Your task to perform on an android device: choose inbox layout in the gmail app Image 0: 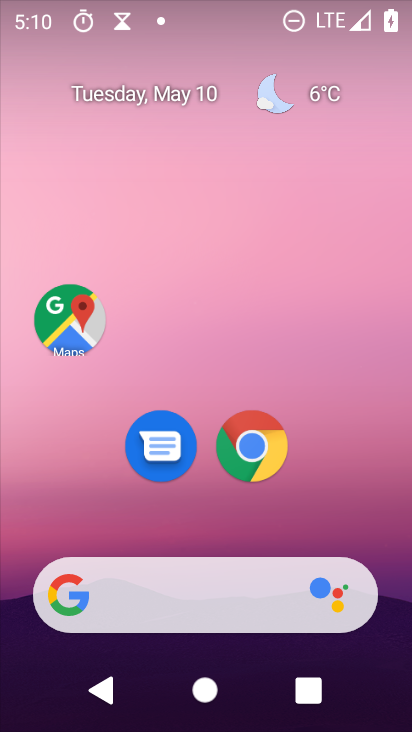
Step 0: click (186, 94)
Your task to perform on an android device: choose inbox layout in the gmail app Image 1: 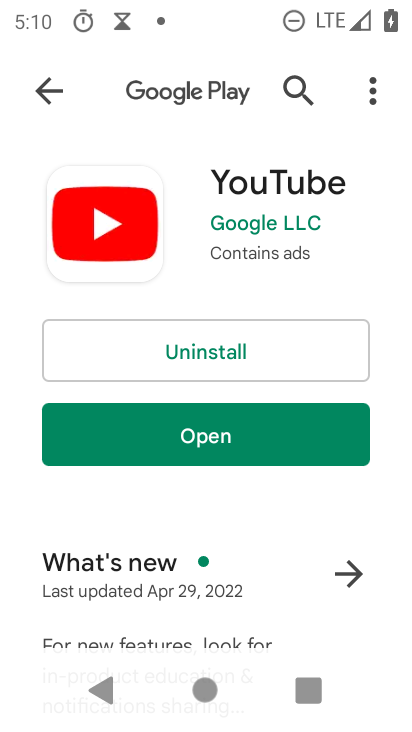
Step 1: press home button
Your task to perform on an android device: choose inbox layout in the gmail app Image 2: 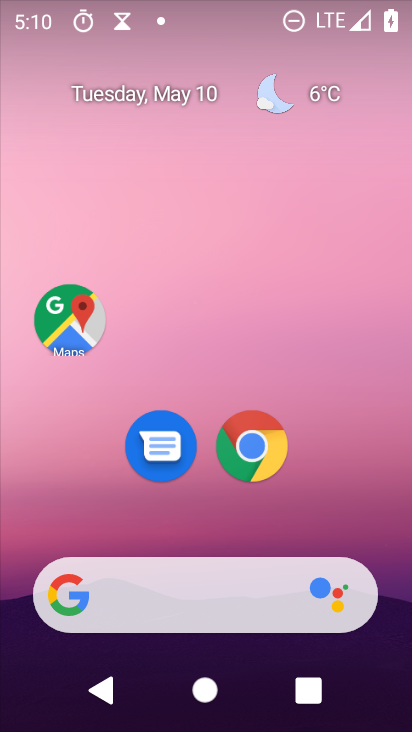
Step 2: drag from (296, 520) to (260, 31)
Your task to perform on an android device: choose inbox layout in the gmail app Image 3: 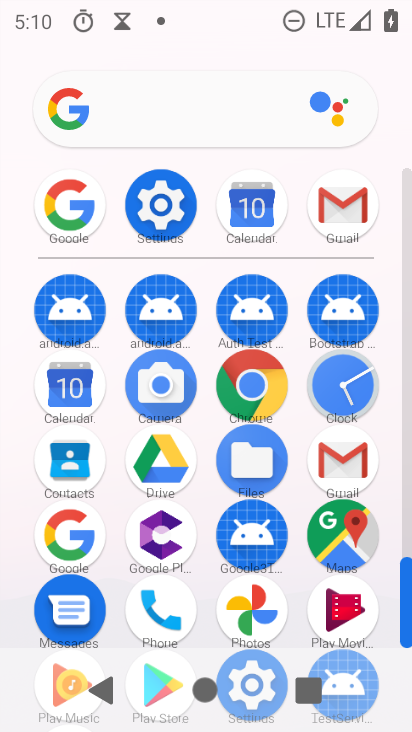
Step 3: click (343, 458)
Your task to perform on an android device: choose inbox layout in the gmail app Image 4: 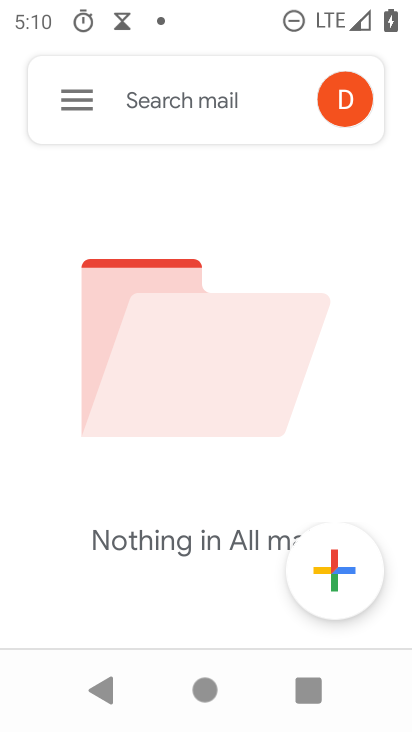
Step 4: click (76, 103)
Your task to perform on an android device: choose inbox layout in the gmail app Image 5: 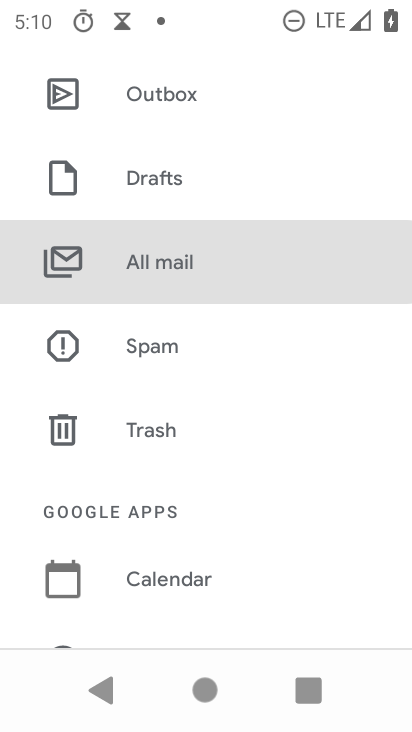
Step 5: drag from (222, 501) to (193, 86)
Your task to perform on an android device: choose inbox layout in the gmail app Image 6: 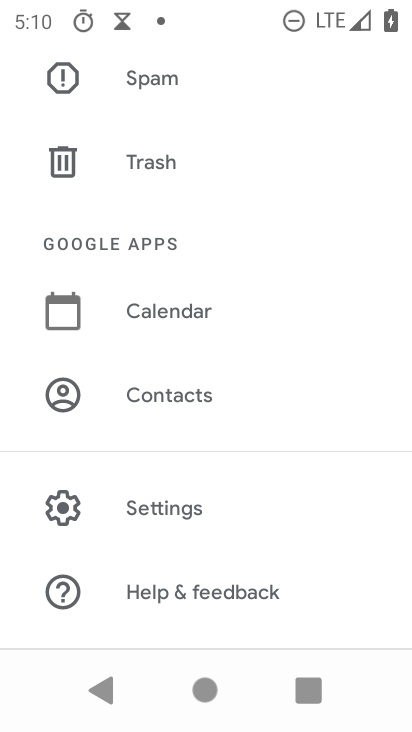
Step 6: click (164, 529)
Your task to perform on an android device: choose inbox layout in the gmail app Image 7: 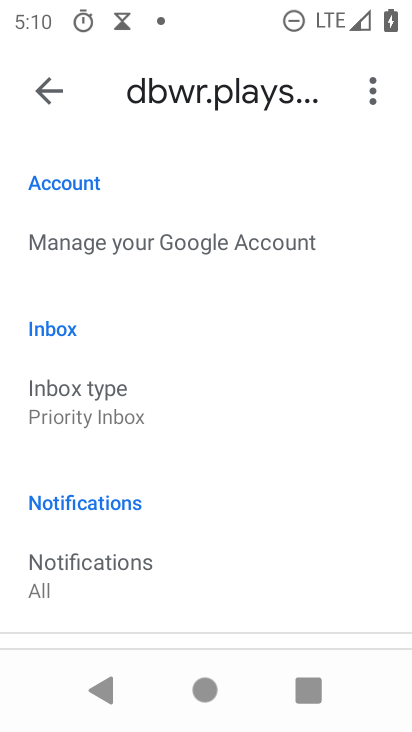
Step 7: click (115, 409)
Your task to perform on an android device: choose inbox layout in the gmail app Image 8: 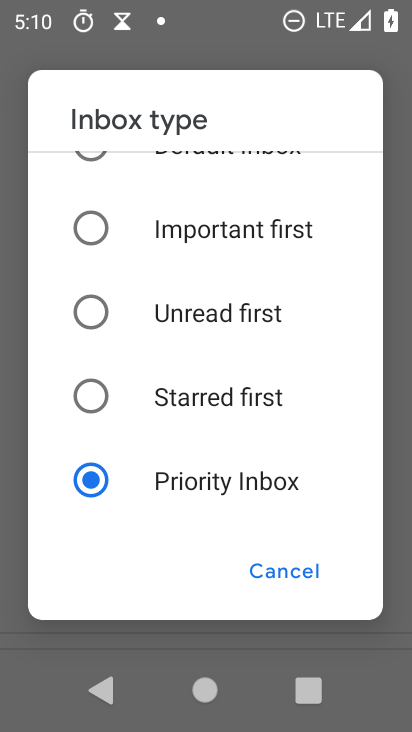
Step 8: click (182, 334)
Your task to perform on an android device: choose inbox layout in the gmail app Image 9: 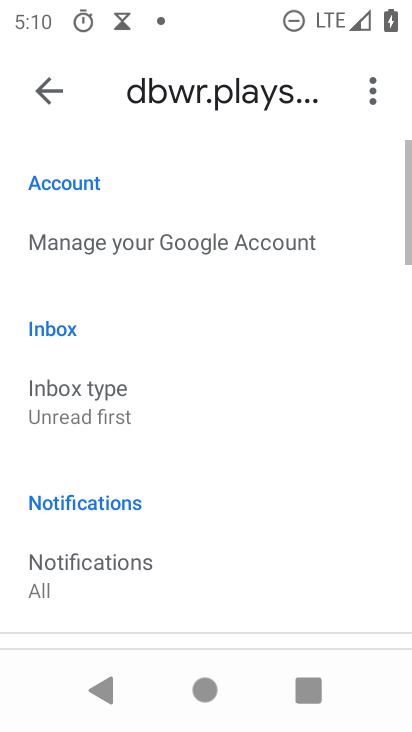
Step 9: task complete